Your task to perform on an android device: Open calendar and show me the first week of next month Image 0: 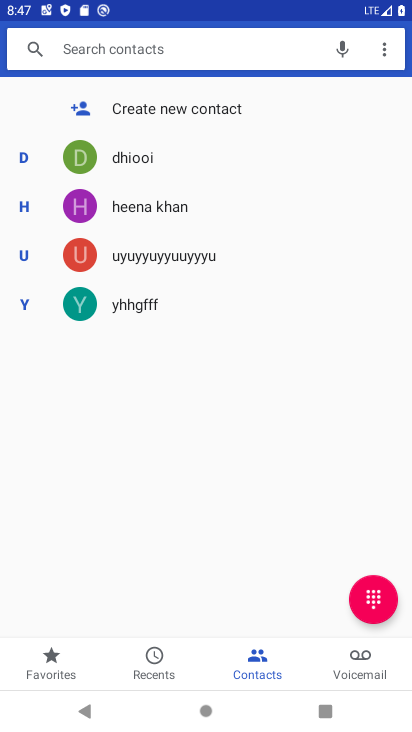
Step 0: press home button
Your task to perform on an android device: Open calendar and show me the first week of next month Image 1: 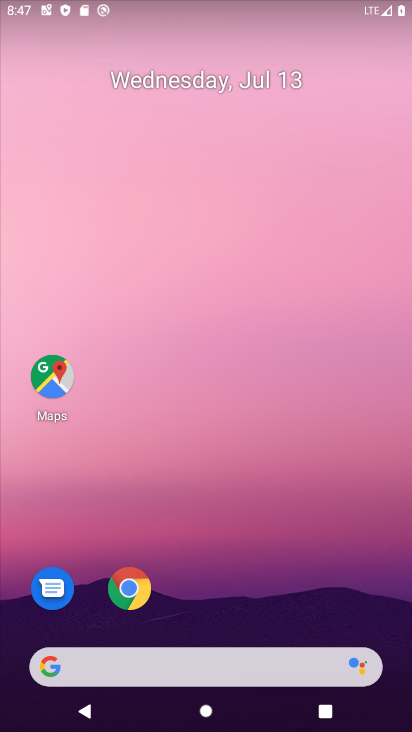
Step 1: drag from (248, 591) to (221, 255)
Your task to perform on an android device: Open calendar and show me the first week of next month Image 2: 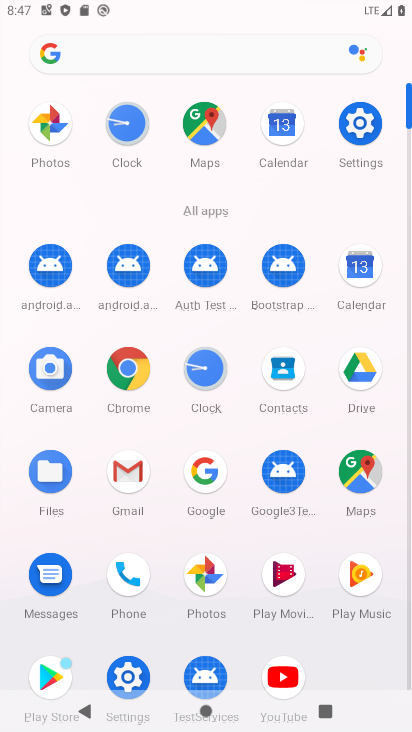
Step 2: click (363, 269)
Your task to perform on an android device: Open calendar and show me the first week of next month Image 3: 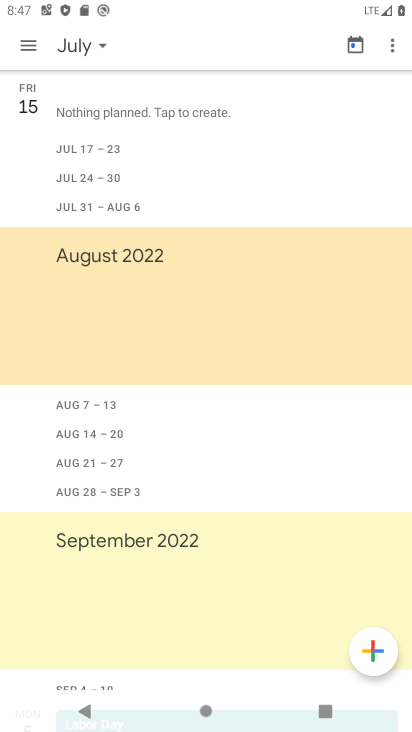
Step 3: click (16, 35)
Your task to perform on an android device: Open calendar and show me the first week of next month Image 4: 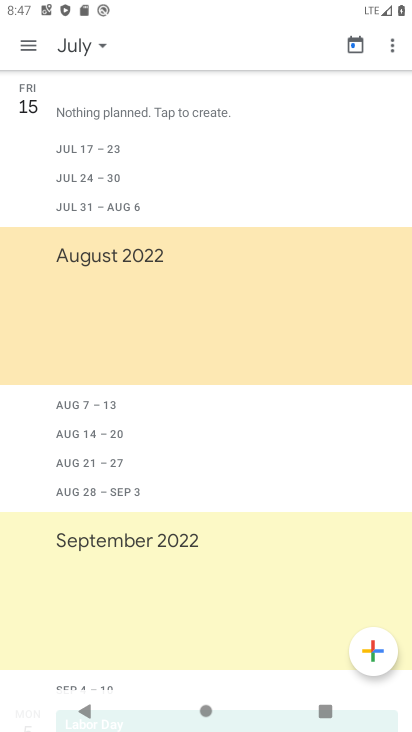
Step 4: click (30, 42)
Your task to perform on an android device: Open calendar and show me the first week of next month Image 5: 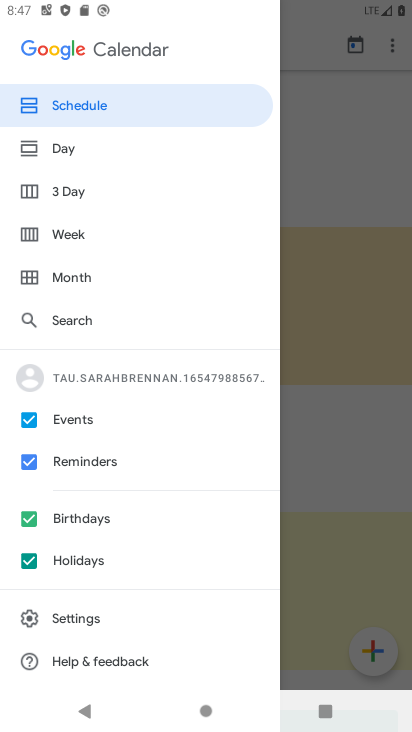
Step 5: click (86, 270)
Your task to perform on an android device: Open calendar and show me the first week of next month Image 6: 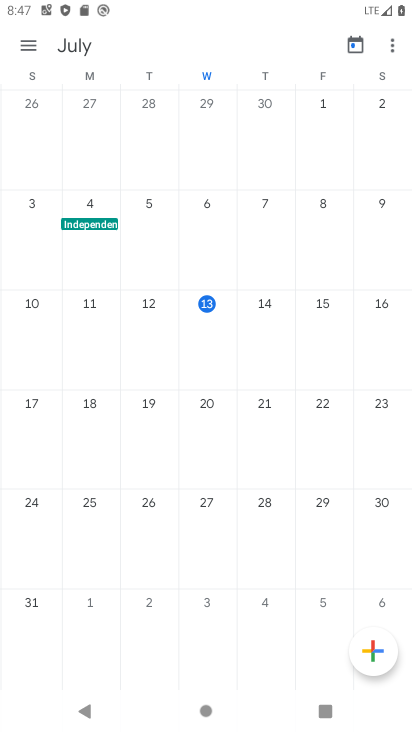
Step 6: task complete